Your task to perform on an android device: open app "eBay: The shopping marketplace" Image 0: 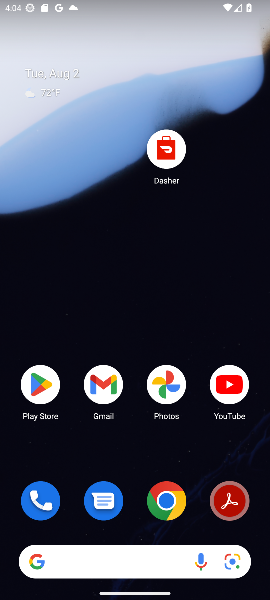
Step 0: click (43, 390)
Your task to perform on an android device: open app "eBay: The shopping marketplace" Image 1: 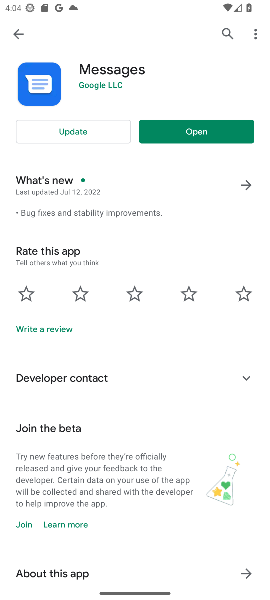
Step 1: click (226, 31)
Your task to perform on an android device: open app "eBay: The shopping marketplace" Image 2: 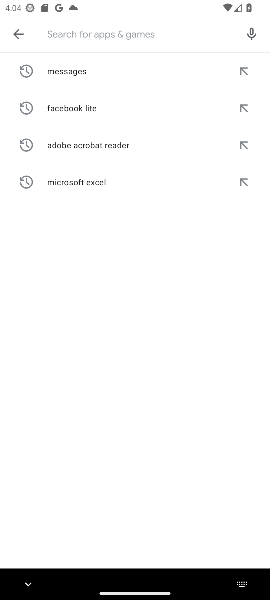
Step 2: type "eBay: The shopping marketplace"
Your task to perform on an android device: open app "eBay: The shopping marketplace" Image 3: 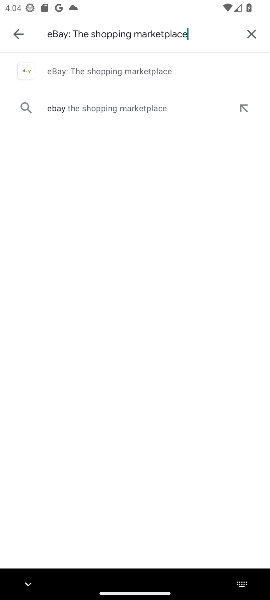
Step 3: click (87, 73)
Your task to perform on an android device: open app "eBay: The shopping marketplace" Image 4: 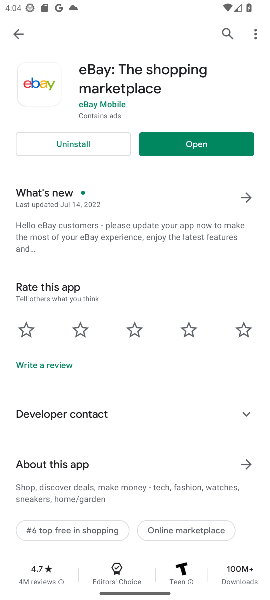
Step 4: click (158, 146)
Your task to perform on an android device: open app "eBay: The shopping marketplace" Image 5: 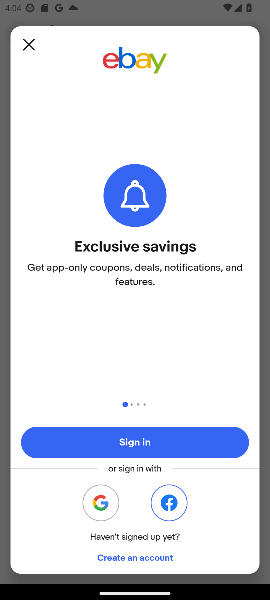
Step 5: task complete